Your task to perform on an android device: toggle airplane mode Image 0: 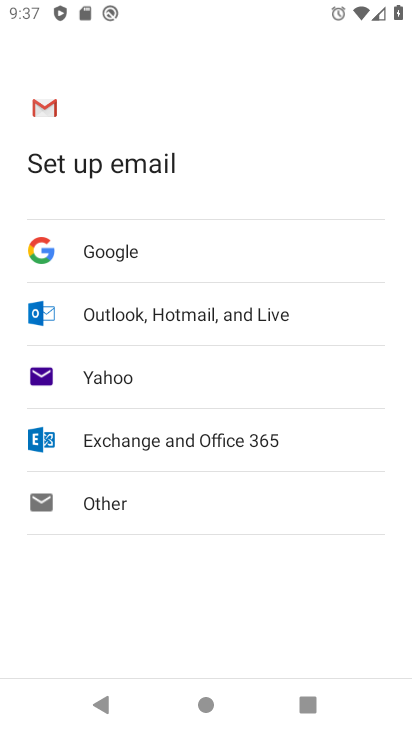
Step 0: press back button
Your task to perform on an android device: toggle airplane mode Image 1: 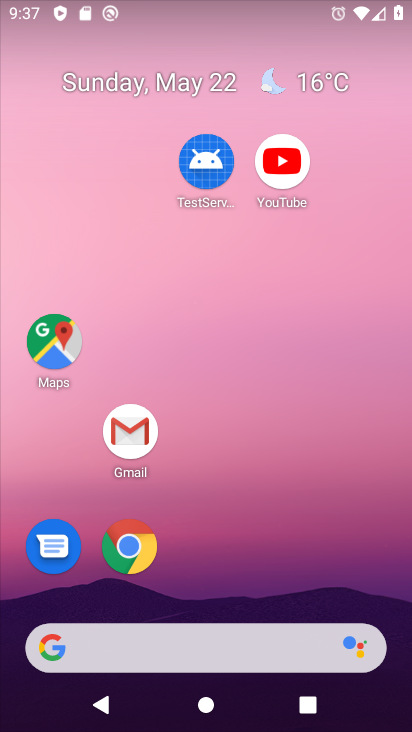
Step 1: drag from (222, 551) to (157, 93)
Your task to perform on an android device: toggle airplane mode Image 2: 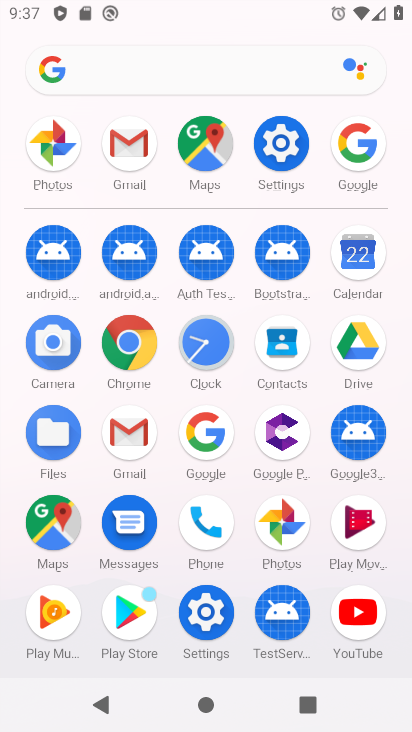
Step 2: click (273, 141)
Your task to perform on an android device: toggle airplane mode Image 3: 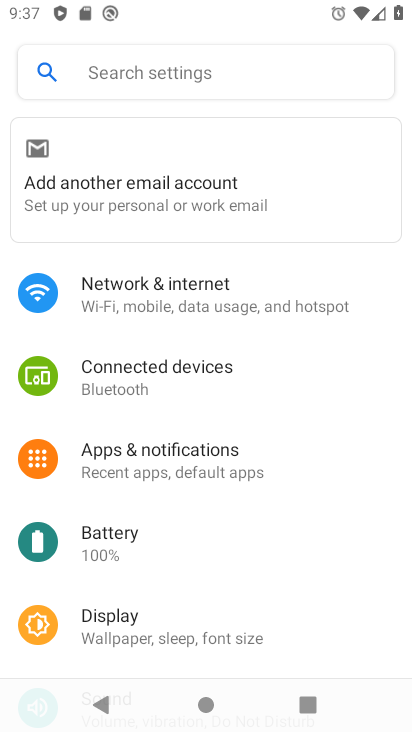
Step 3: click (173, 296)
Your task to perform on an android device: toggle airplane mode Image 4: 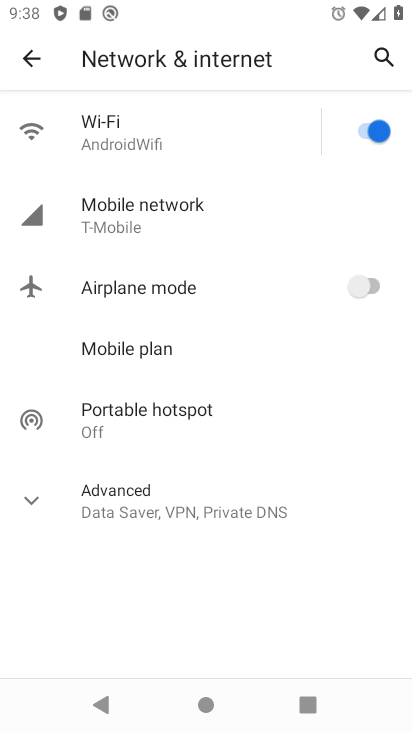
Step 4: click (351, 289)
Your task to perform on an android device: toggle airplane mode Image 5: 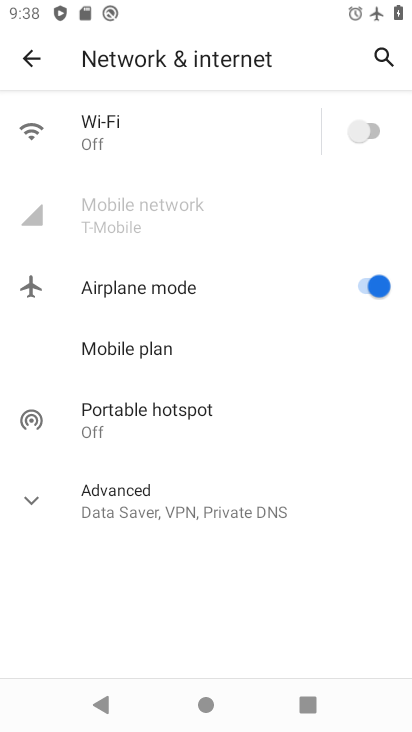
Step 5: task complete